Your task to perform on an android device: clear all cookies in the chrome app Image 0: 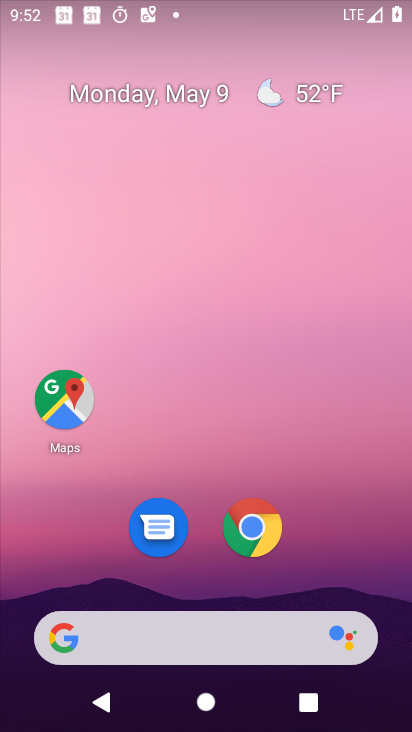
Step 0: drag from (352, 513) to (362, 182)
Your task to perform on an android device: clear all cookies in the chrome app Image 1: 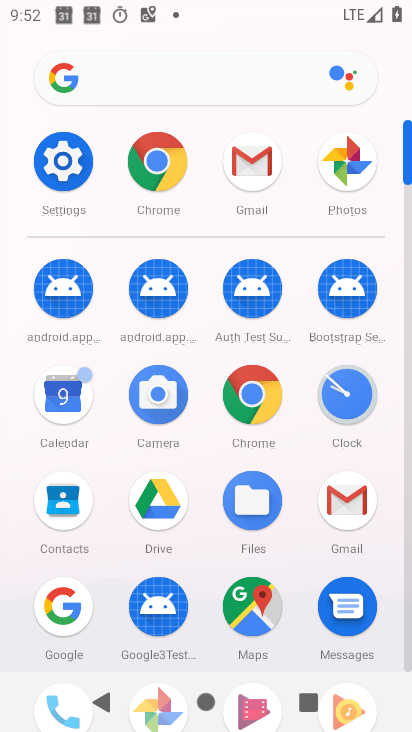
Step 1: click (261, 363)
Your task to perform on an android device: clear all cookies in the chrome app Image 2: 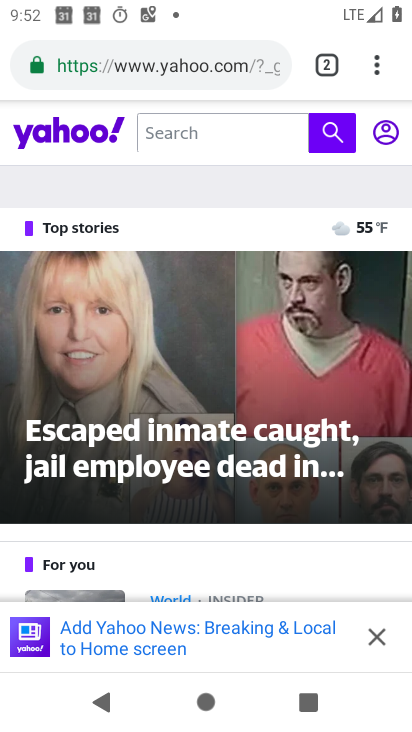
Step 2: drag from (377, 75) to (147, 371)
Your task to perform on an android device: clear all cookies in the chrome app Image 3: 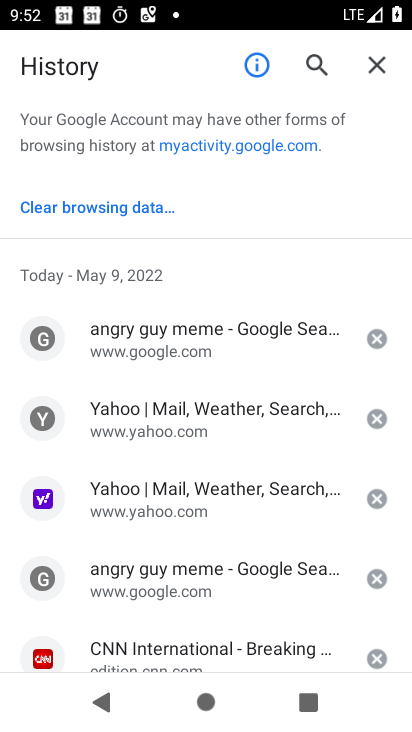
Step 3: click (124, 212)
Your task to perform on an android device: clear all cookies in the chrome app Image 4: 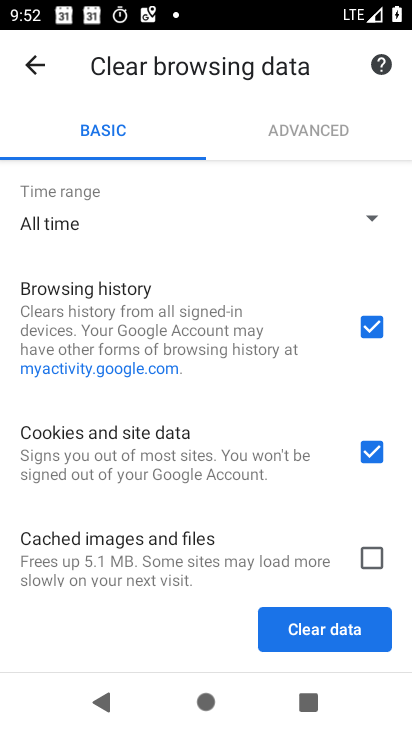
Step 4: click (372, 325)
Your task to perform on an android device: clear all cookies in the chrome app Image 5: 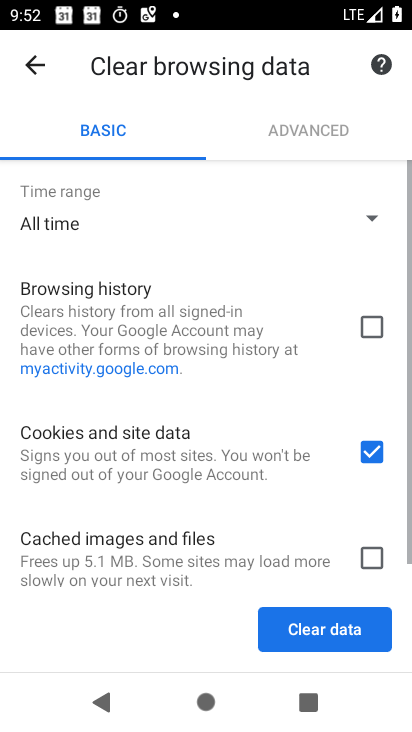
Step 5: click (297, 625)
Your task to perform on an android device: clear all cookies in the chrome app Image 6: 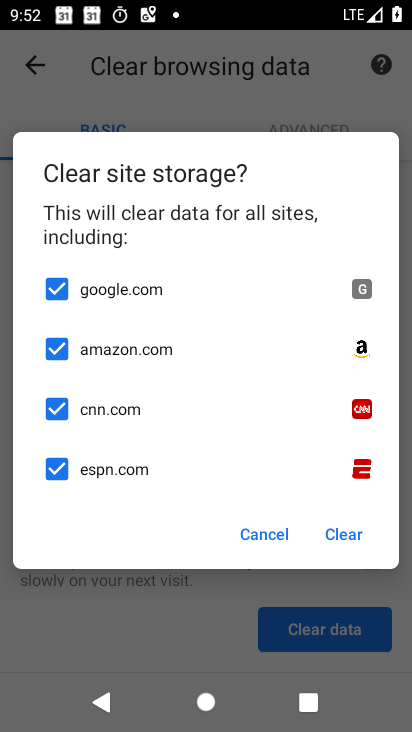
Step 6: click (356, 535)
Your task to perform on an android device: clear all cookies in the chrome app Image 7: 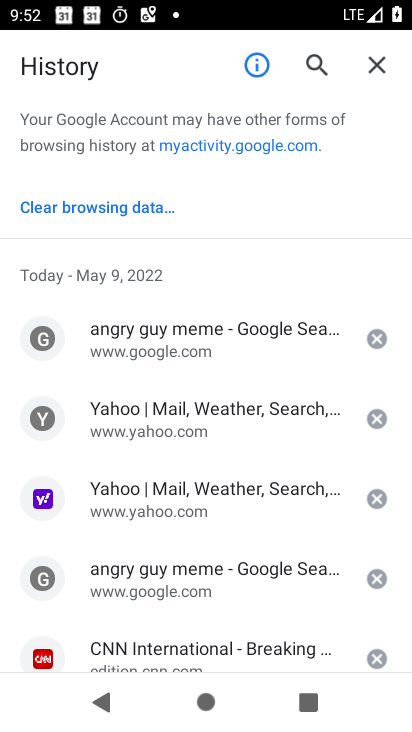
Step 7: task complete